Your task to perform on an android device: What's the weather today? Image 0: 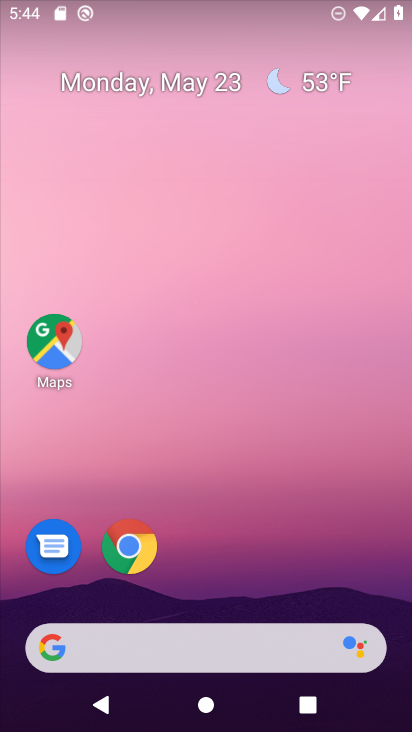
Step 0: click (215, 649)
Your task to perform on an android device: What's the weather today? Image 1: 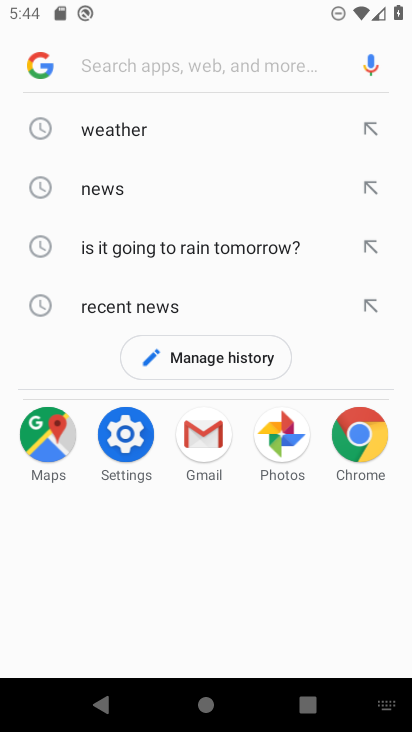
Step 1: click (131, 125)
Your task to perform on an android device: What's the weather today? Image 2: 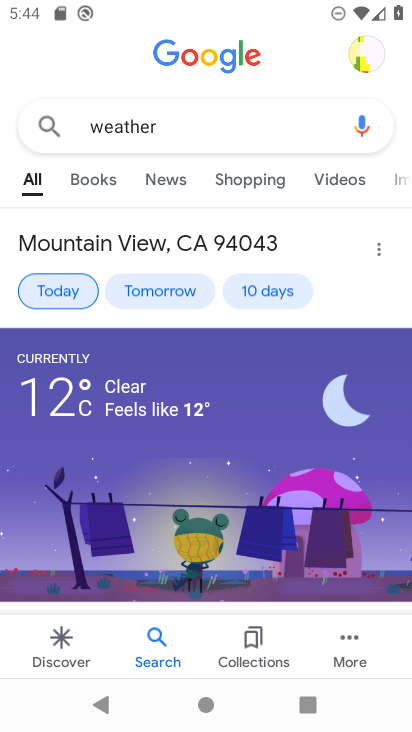
Step 2: task complete